Your task to perform on an android device: turn notification dots off Image 0: 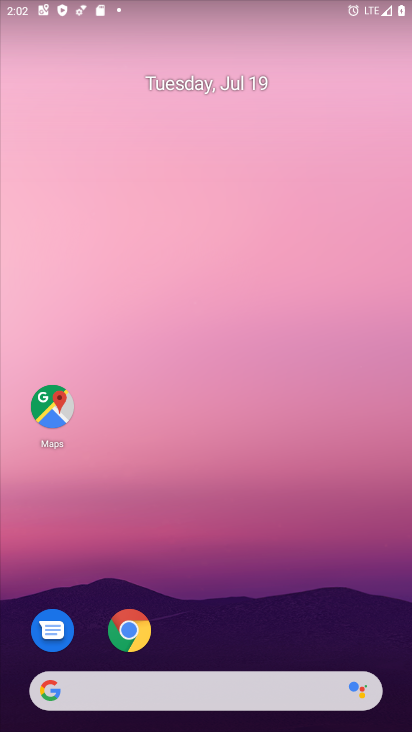
Step 0: drag from (240, 643) to (245, 115)
Your task to perform on an android device: turn notification dots off Image 1: 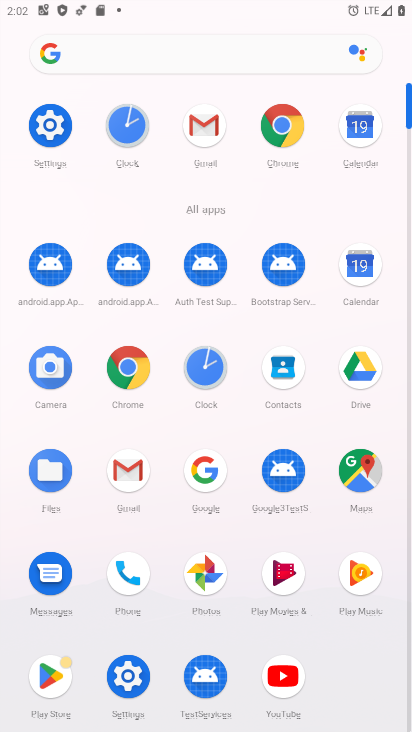
Step 1: click (48, 123)
Your task to perform on an android device: turn notification dots off Image 2: 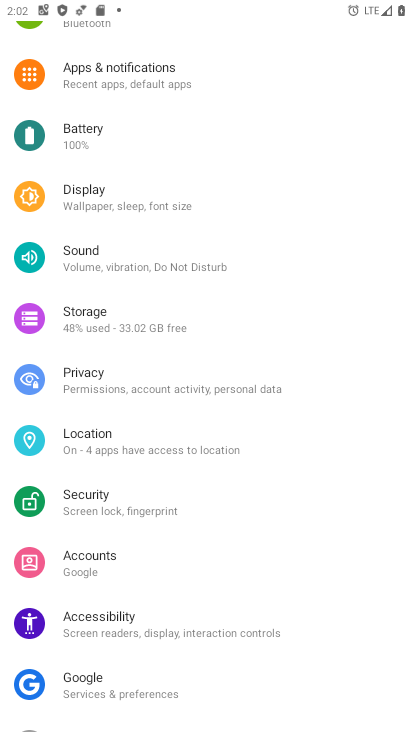
Step 2: click (156, 68)
Your task to perform on an android device: turn notification dots off Image 3: 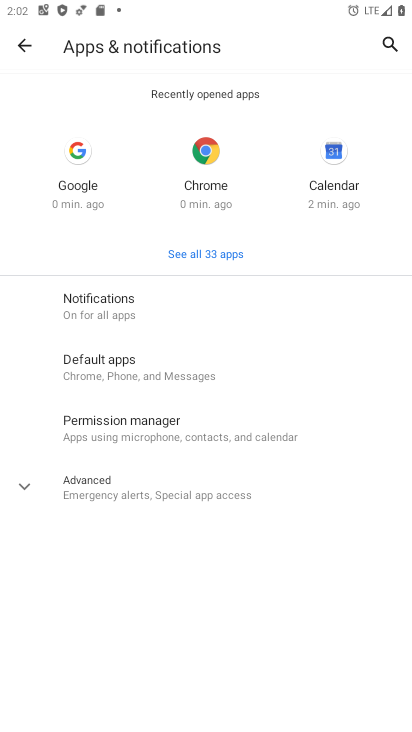
Step 3: click (144, 295)
Your task to perform on an android device: turn notification dots off Image 4: 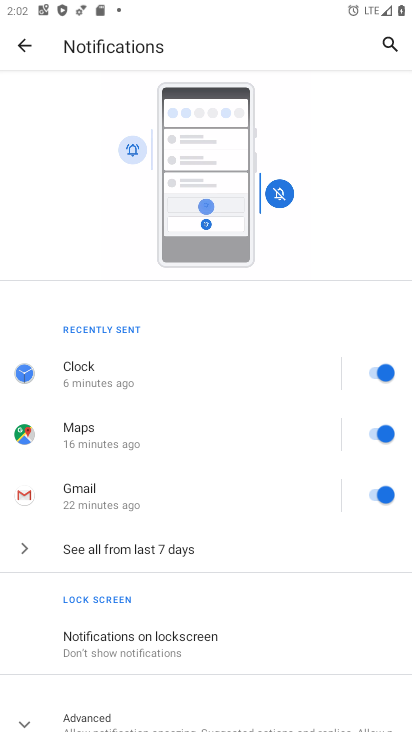
Step 4: drag from (196, 642) to (194, 109)
Your task to perform on an android device: turn notification dots off Image 5: 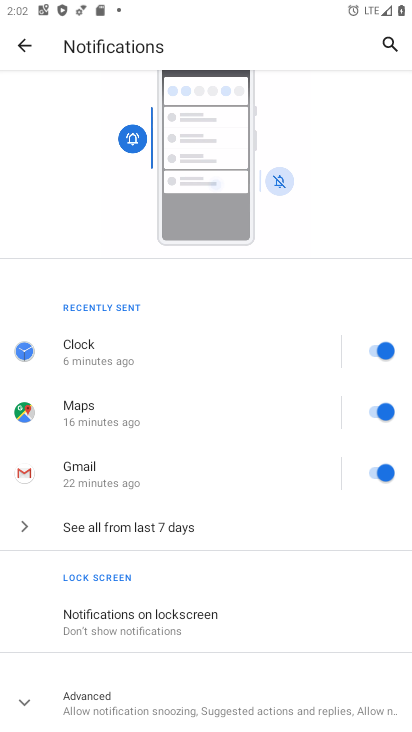
Step 5: click (115, 704)
Your task to perform on an android device: turn notification dots off Image 6: 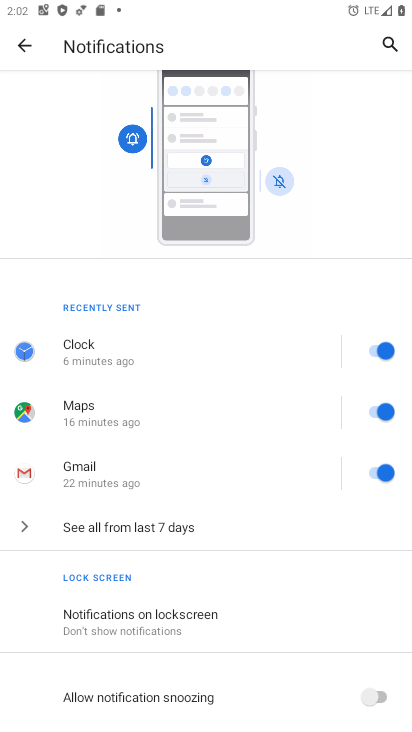
Step 6: drag from (203, 699) to (205, 251)
Your task to perform on an android device: turn notification dots off Image 7: 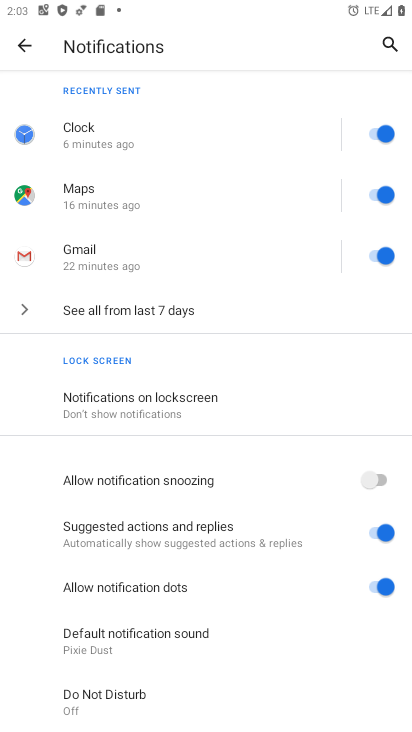
Step 7: click (378, 584)
Your task to perform on an android device: turn notification dots off Image 8: 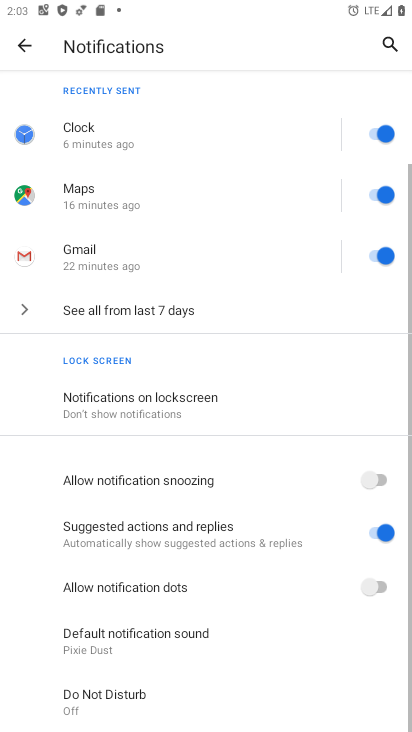
Step 8: task complete